Your task to perform on an android device: Turn on the flashlight Image 0: 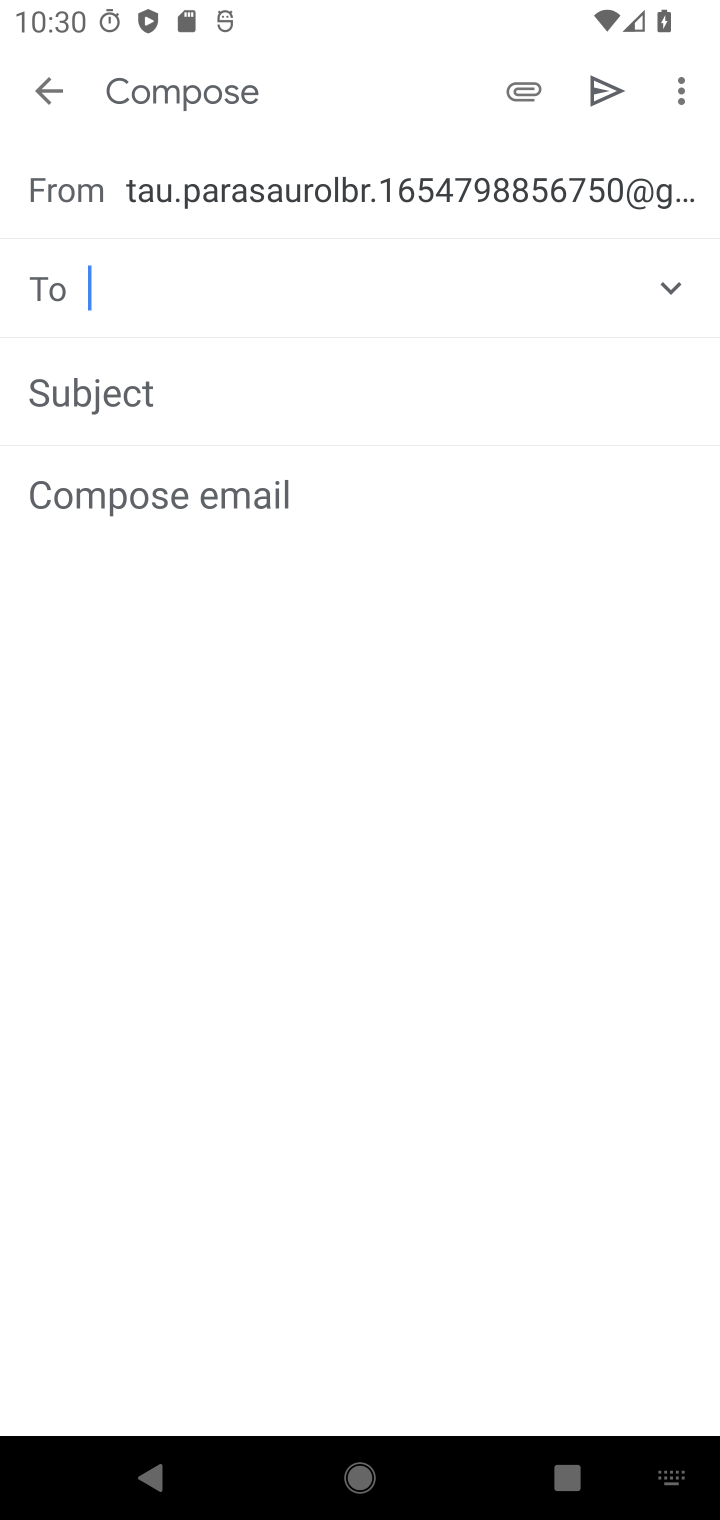
Step 0: press home button
Your task to perform on an android device: Turn on the flashlight Image 1: 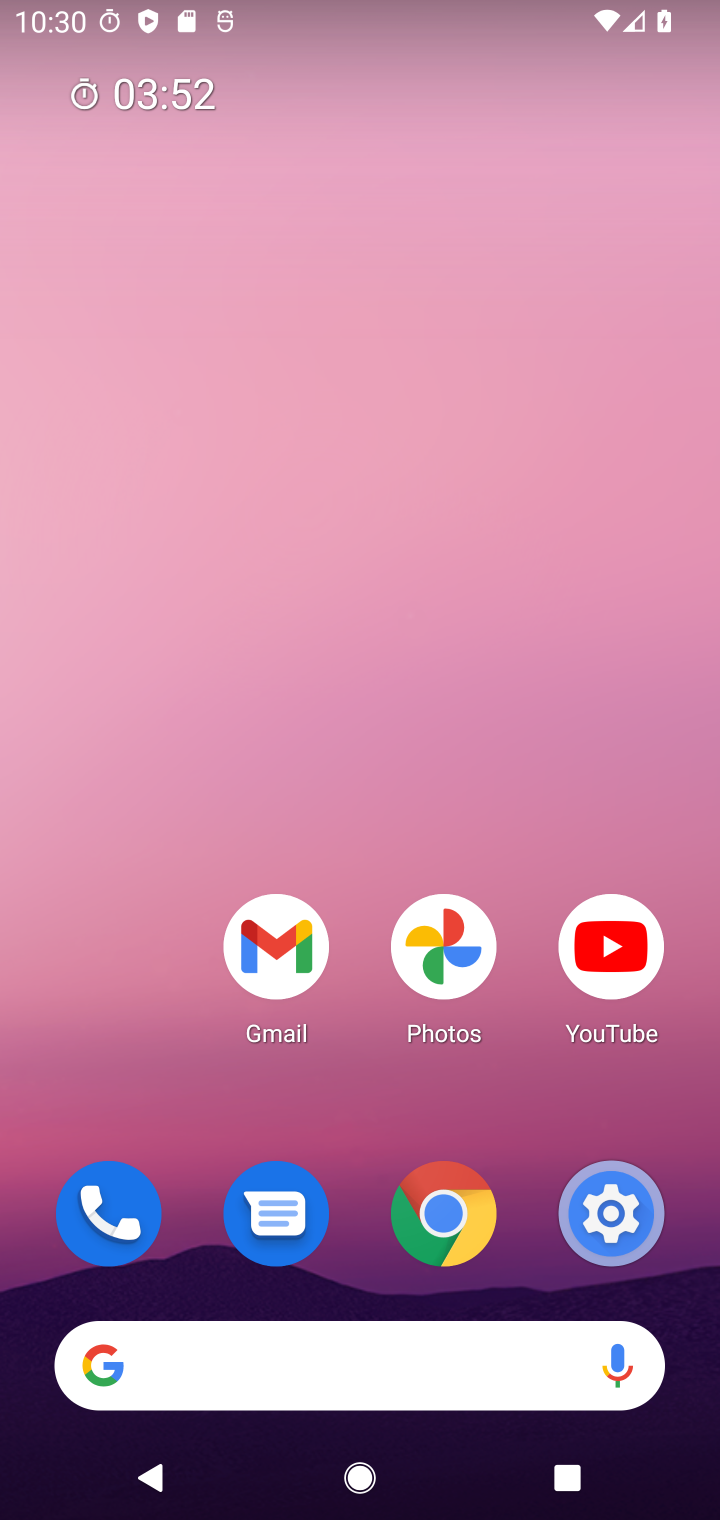
Step 1: drag from (359, 1116) to (424, 289)
Your task to perform on an android device: Turn on the flashlight Image 2: 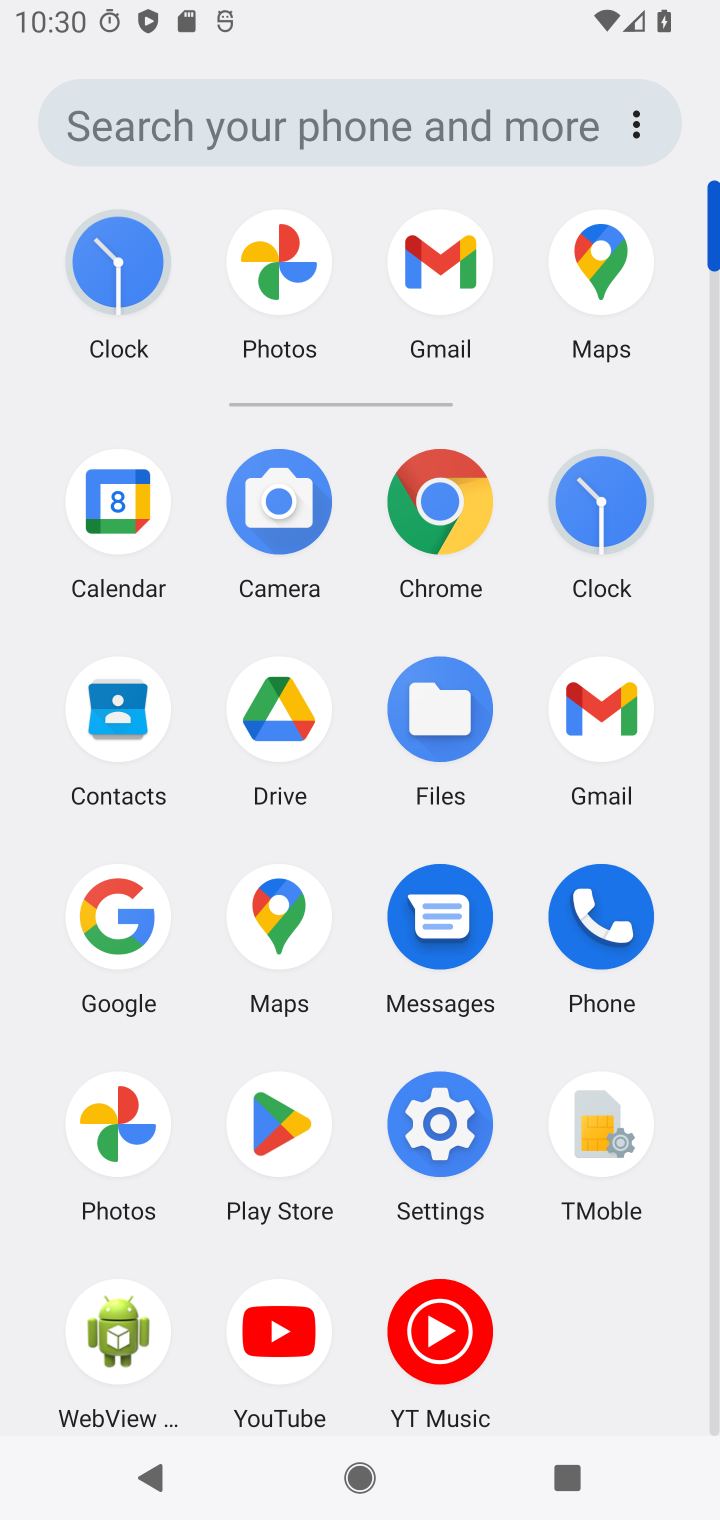
Step 2: click (443, 1163)
Your task to perform on an android device: Turn on the flashlight Image 3: 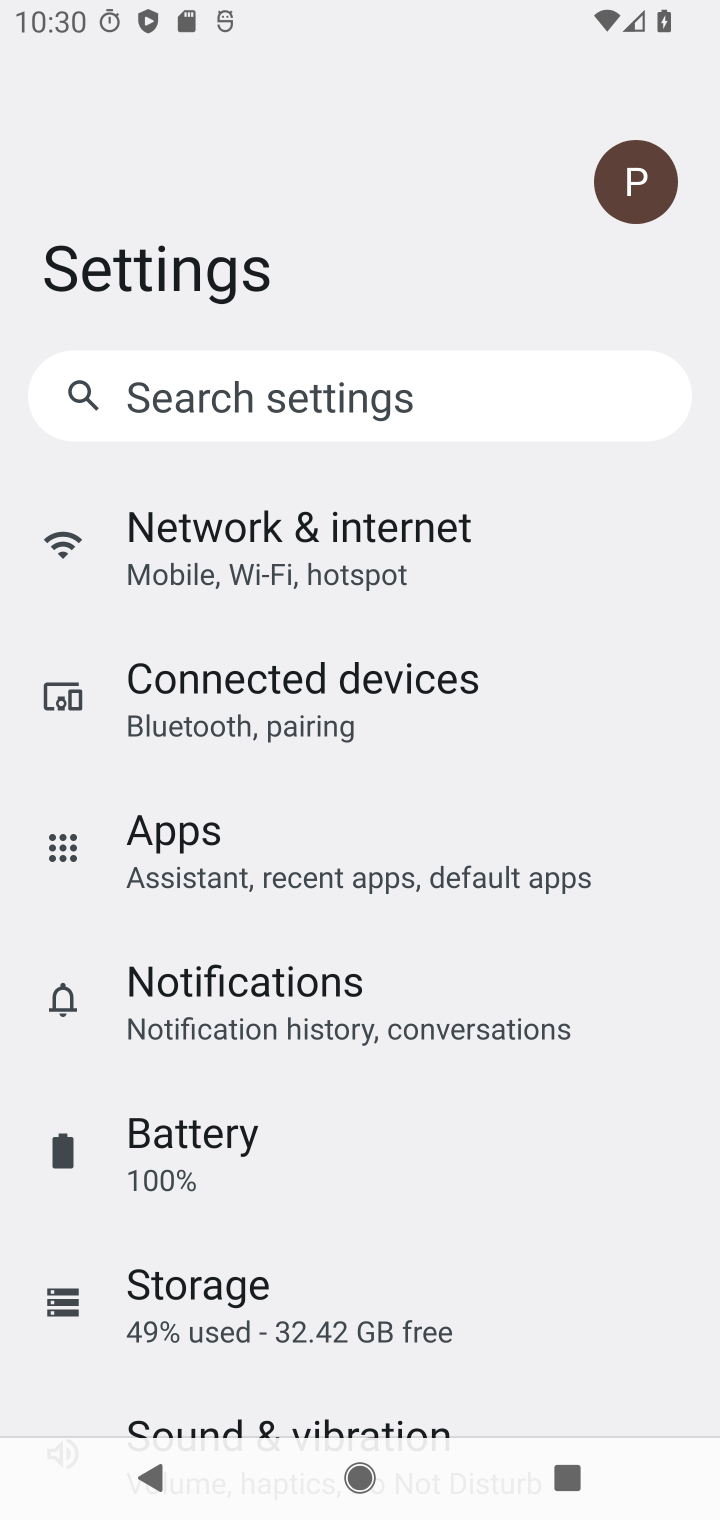
Step 3: task complete